Your task to perform on an android device: What's the weather going to be this weekend? Image 0: 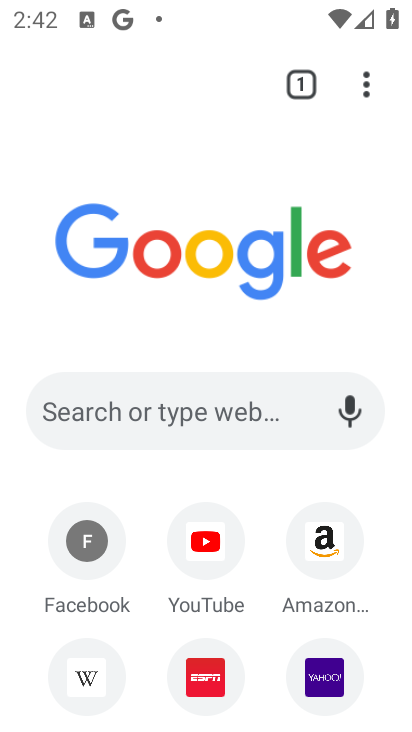
Step 0: click (26, 729)
Your task to perform on an android device: What's the weather going to be this weekend? Image 1: 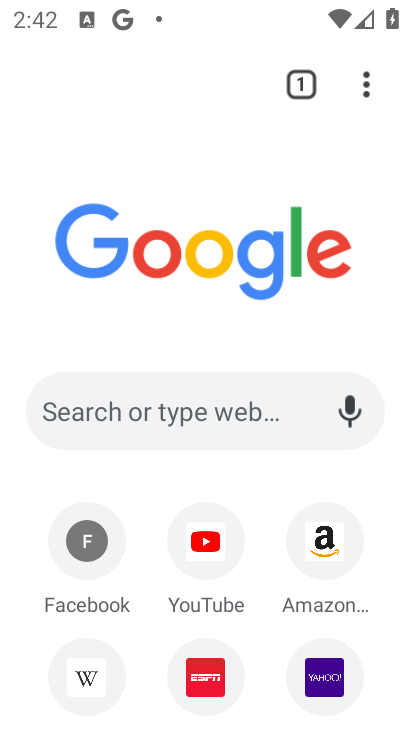
Step 1: click (282, 414)
Your task to perform on an android device: What's the weather going to be this weekend? Image 2: 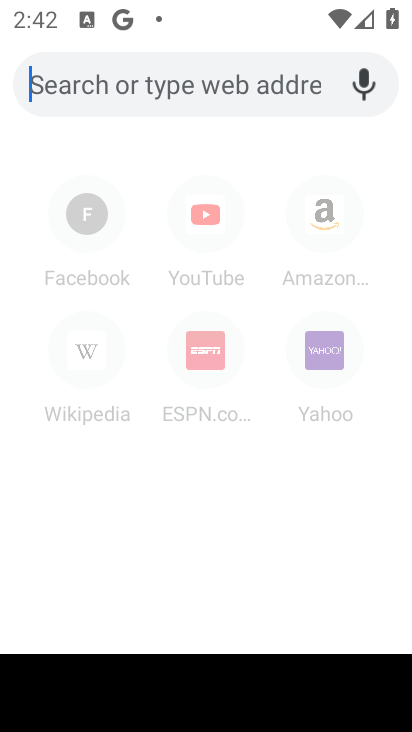
Step 2: type "What's the weather going to be this weekend?"
Your task to perform on an android device: What's the weather going to be this weekend? Image 3: 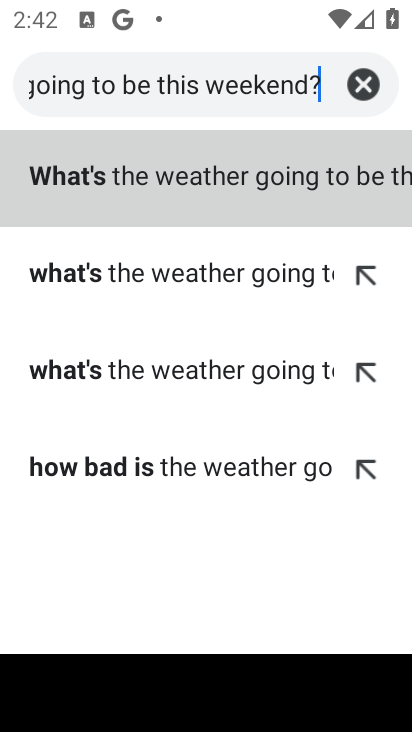
Step 3: click (325, 185)
Your task to perform on an android device: What's the weather going to be this weekend? Image 4: 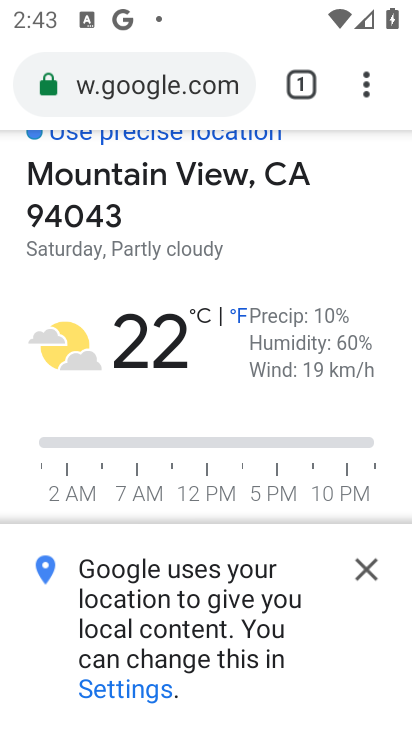
Step 4: task complete